Your task to perform on an android device: change text size in settings app Image 0: 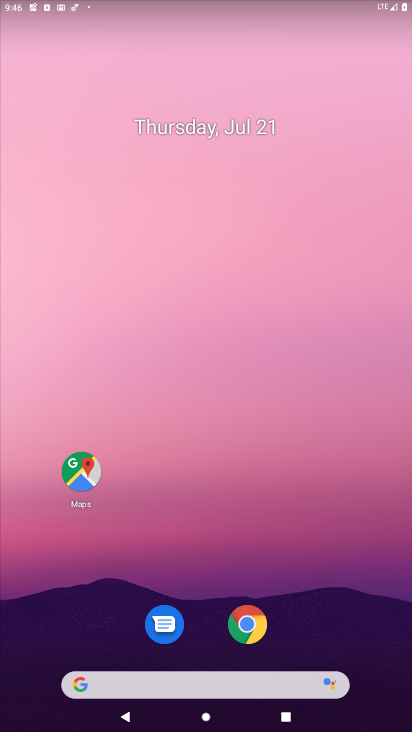
Step 0: drag from (0, 0) to (327, 85)
Your task to perform on an android device: change text size in settings app Image 1: 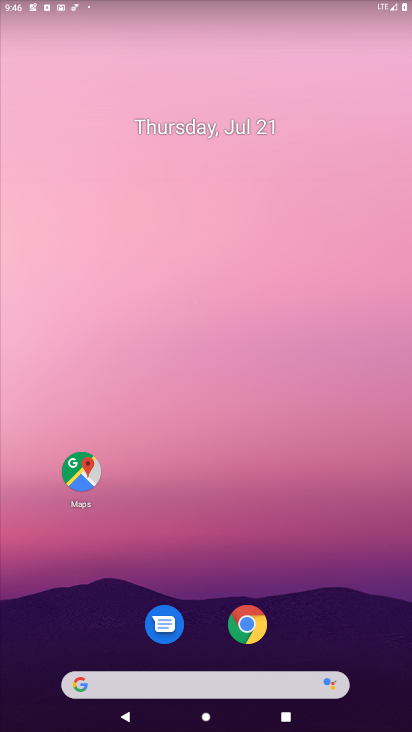
Step 1: drag from (82, 622) to (262, 186)
Your task to perform on an android device: change text size in settings app Image 2: 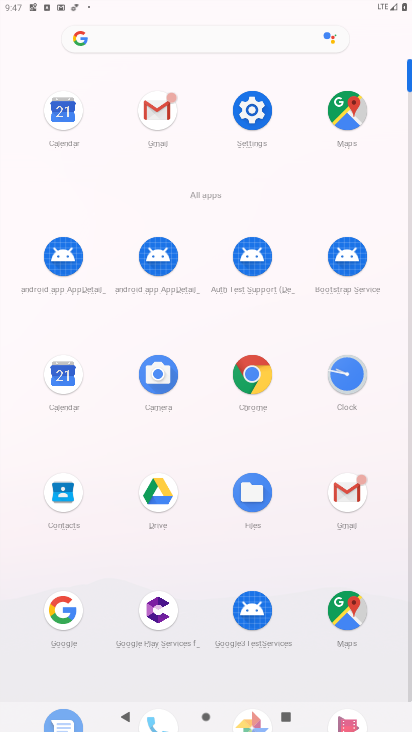
Step 2: click (268, 124)
Your task to perform on an android device: change text size in settings app Image 3: 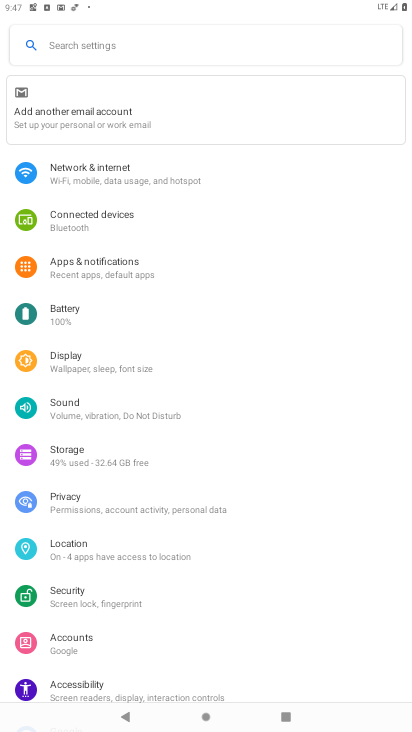
Step 3: click (164, 366)
Your task to perform on an android device: change text size in settings app Image 4: 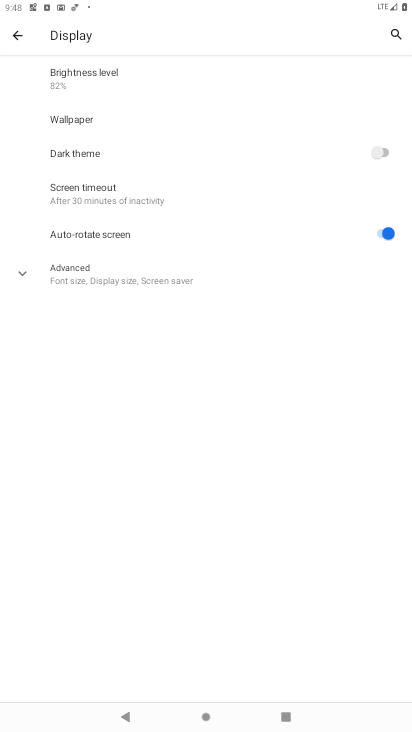
Step 4: click (93, 278)
Your task to perform on an android device: change text size in settings app Image 5: 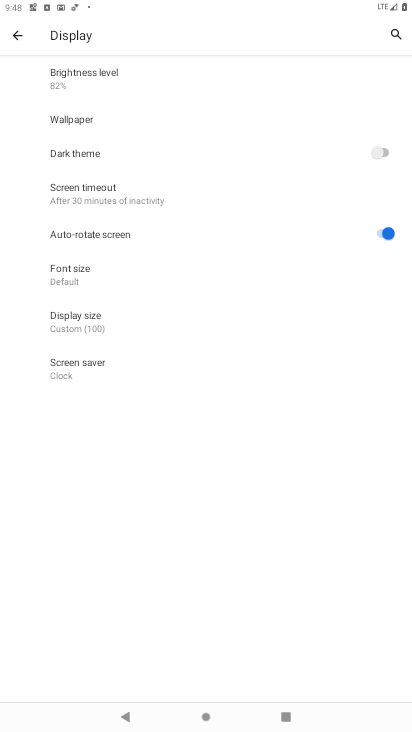
Step 5: click (114, 283)
Your task to perform on an android device: change text size in settings app Image 6: 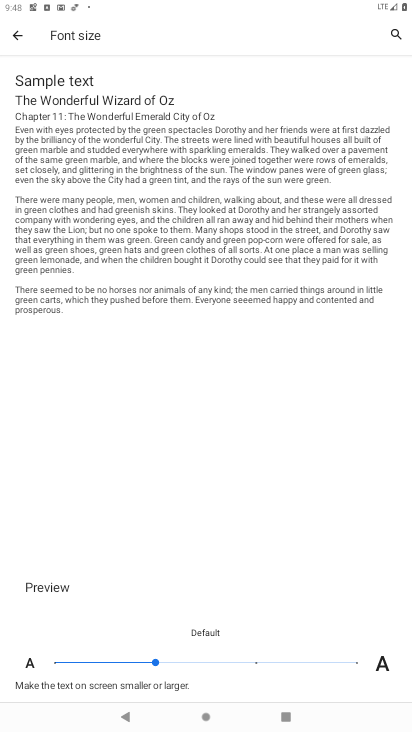
Step 6: click (255, 670)
Your task to perform on an android device: change text size in settings app Image 7: 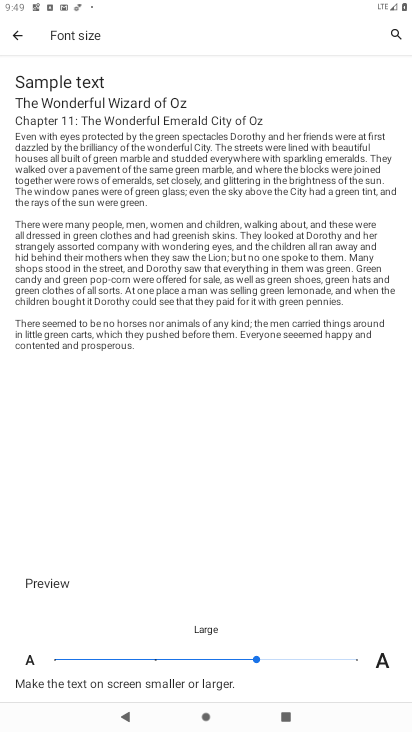
Step 7: task complete